Your task to perform on an android device: Open the phone app and click the voicemail tab. Image 0: 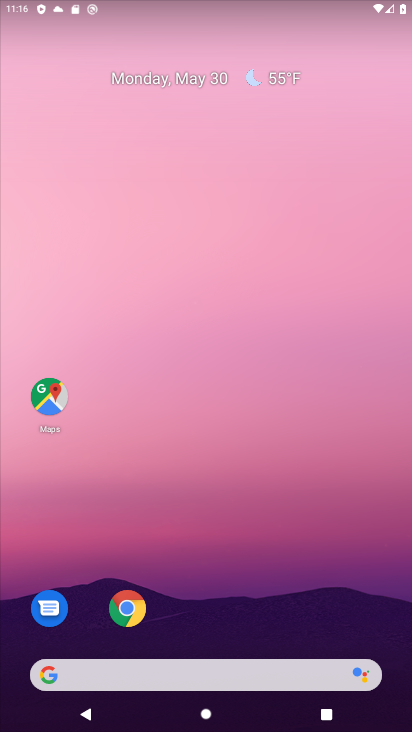
Step 0: drag from (281, 645) to (299, 73)
Your task to perform on an android device: Open the phone app and click the voicemail tab. Image 1: 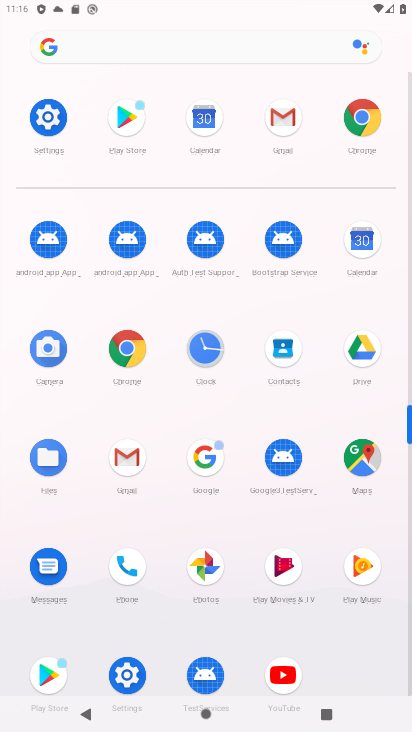
Step 1: click (127, 565)
Your task to perform on an android device: Open the phone app and click the voicemail tab. Image 2: 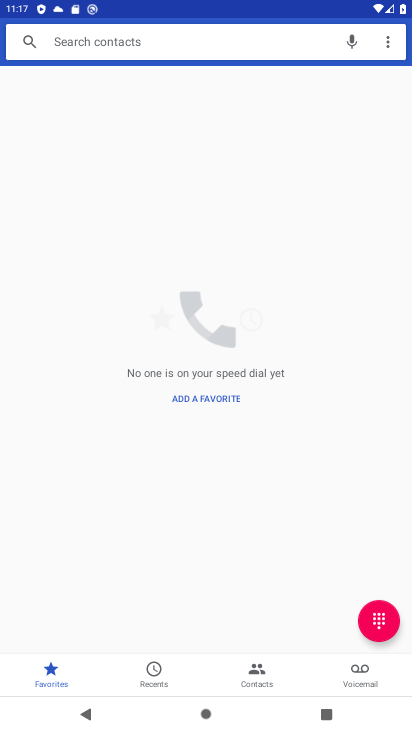
Step 2: click (364, 684)
Your task to perform on an android device: Open the phone app and click the voicemail tab. Image 3: 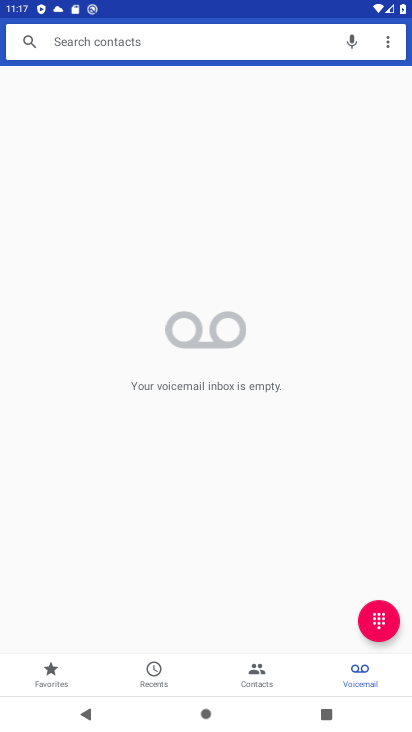
Step 3: task complete